Your task to perform on an android device: Open Maps and search for coffee Image 0: 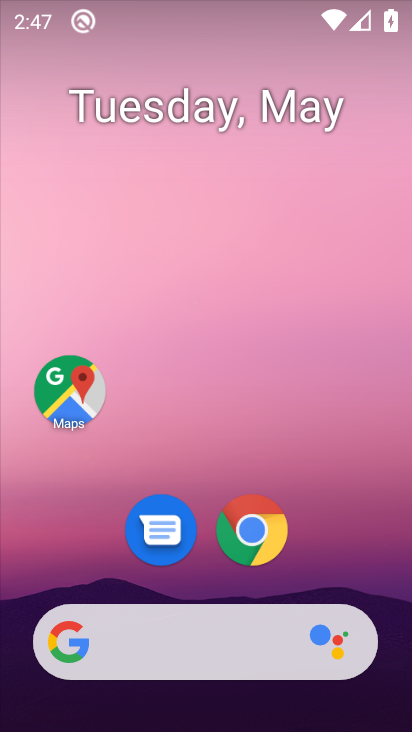
Step 0: click (77, 371)
Your task to perform on an android device: Open Maps and search for coffee Image 1: 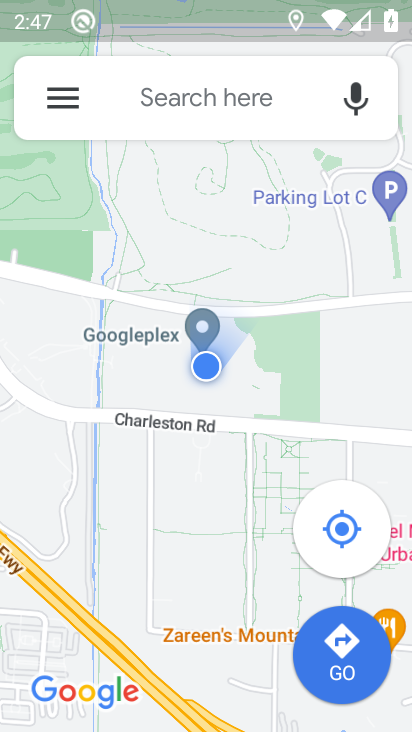
Step 1: click (246, 117)
Your task to perform on an android device: Open Maps and search for coffee Image 2: 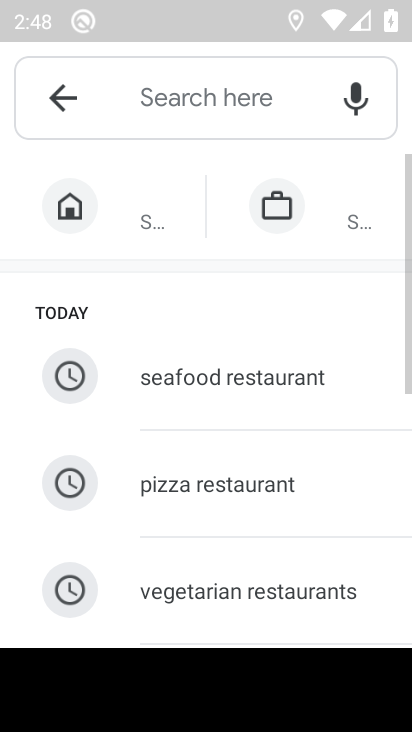
Step 2: drag from (30, 596) to (309, 198)
Your task to perform on an android device: Open Maps and search for coffee Image 3: 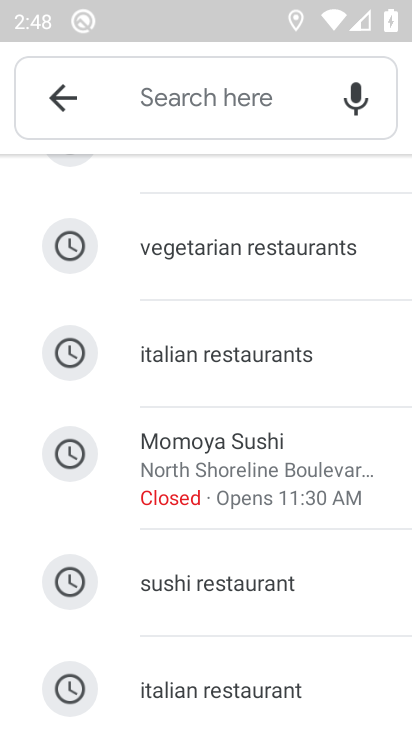
Step 3: drag from (43, 679) to (338, 250)
Your task to perform on an android device: Open Maps and search for coffee Image 4: 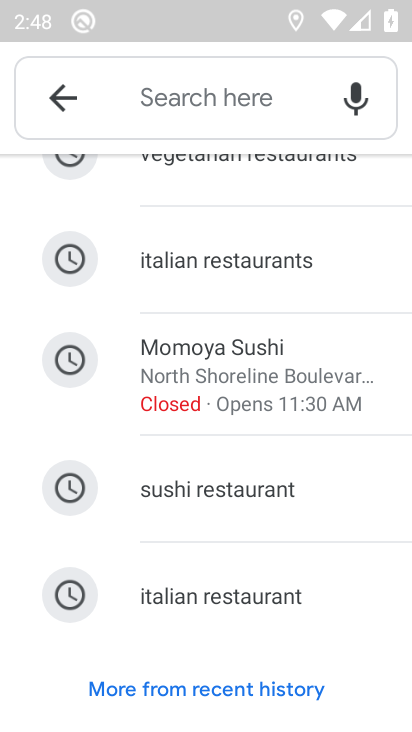
Step 4: click (271, 98)
Your task to perform on an android device: Open Maps and search for coffee Image 5: 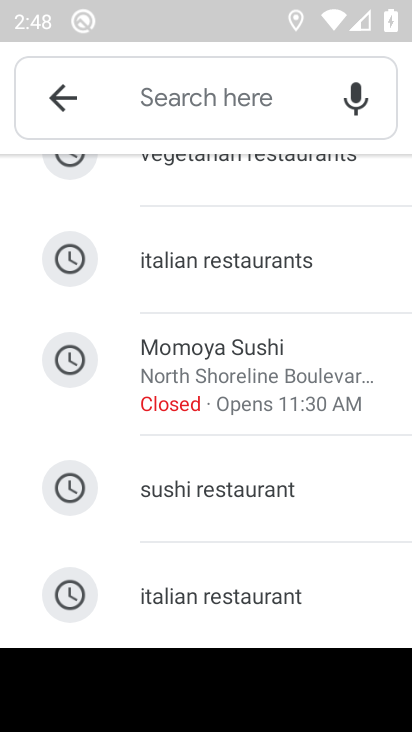
Step 5: type " coffee"
Your task to perform on an android device: Open Maps and search for coffee Image 6: 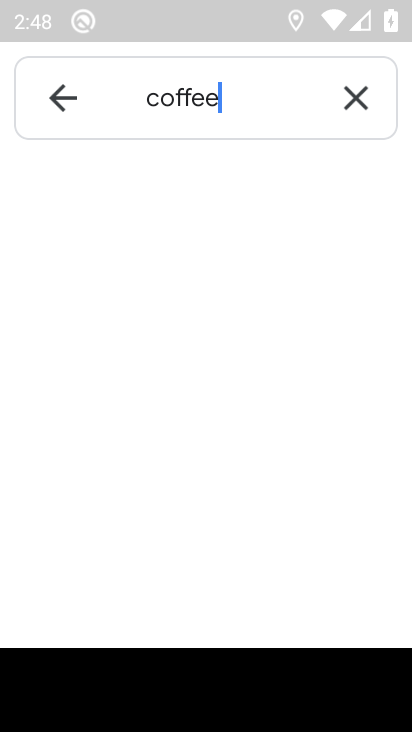
Step 6: type ""
Your task to perform on an android device: Open Maps and search for coffee Image 7: 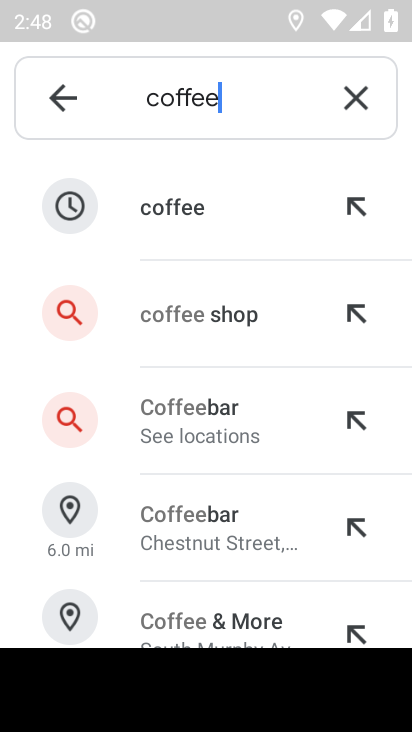
Step 7: click (230, 175)
Your task to perform on an android device: Open Maps and search for coffee Image 8: 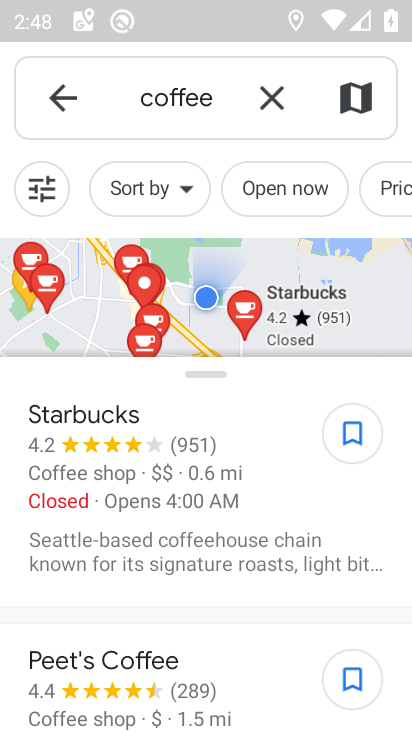
Step 8: task complete